Your task to perform on an android device: turn off airplane mode Image 0: 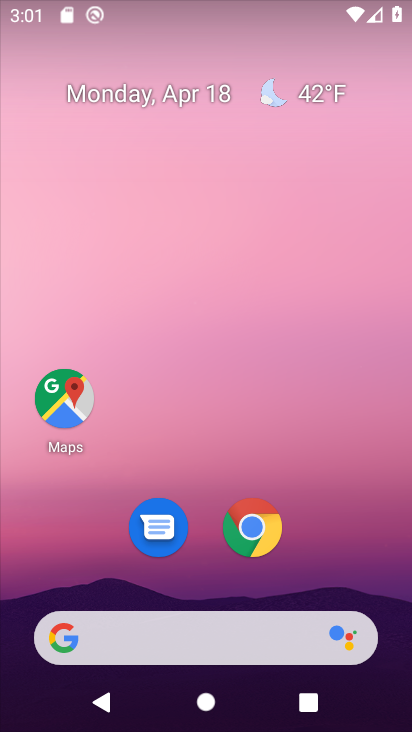
Step 0: drag from (326, 433) to (292, 21)
Your task to perform on an android device: turn off airplane mode Image 1: 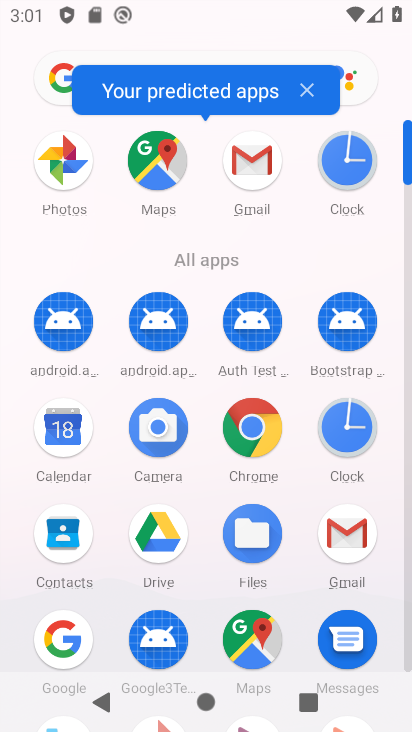
Step 1: drag from (210, 551) to (226, 101)
Your task to perform on an android device: turn off airplane mode Image 2: 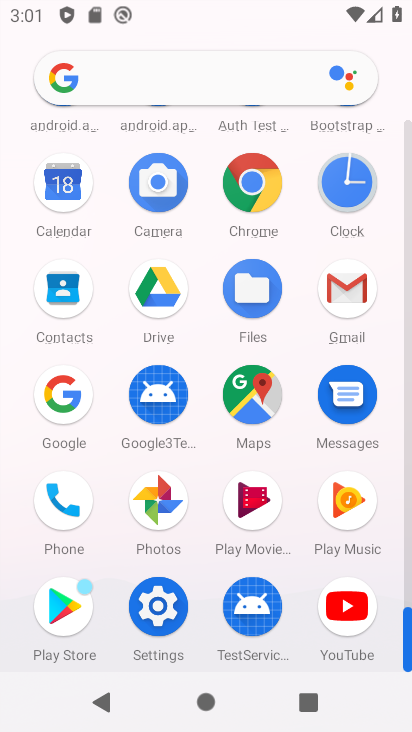
Step 2: click (161, 607)
Your task to perform on an android device: turn off airplane mode Image 3: 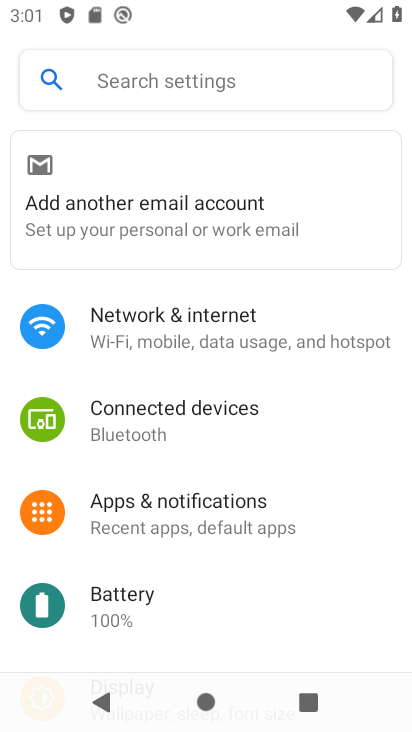
Step 3: click (244, 326)
Your task to perform on an android device: turn off airplane mode Image 4: 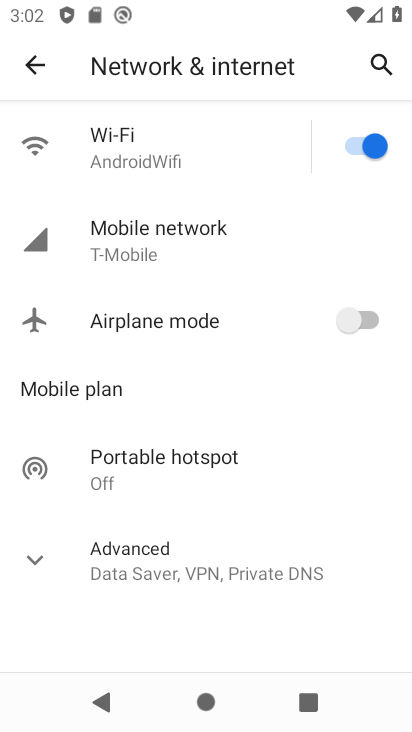
Step 4: task complete